Your task to perform on an android device: see creations saved in the google photos Image 0: 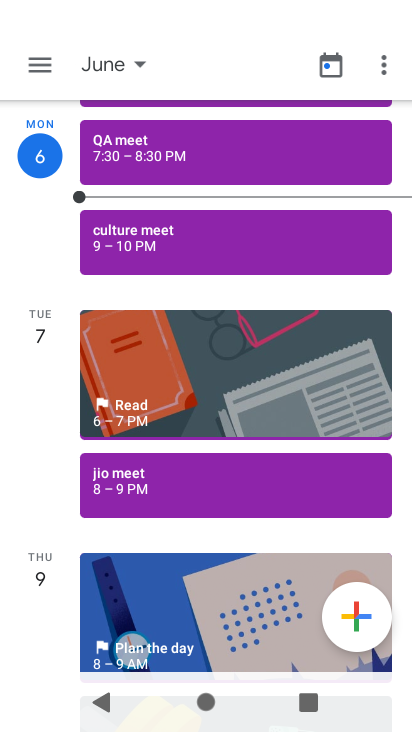
Step 0: press home button
Your task to perform on an android device: see creations saved in the google photos Image 1: 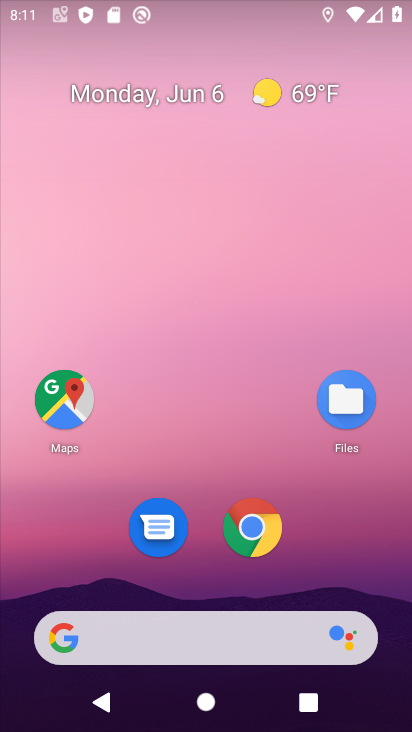
Step 1: drag from (187, 586) to (187, 94)
Your task to perform on an android device: see creations saved in the google photos Image 2: 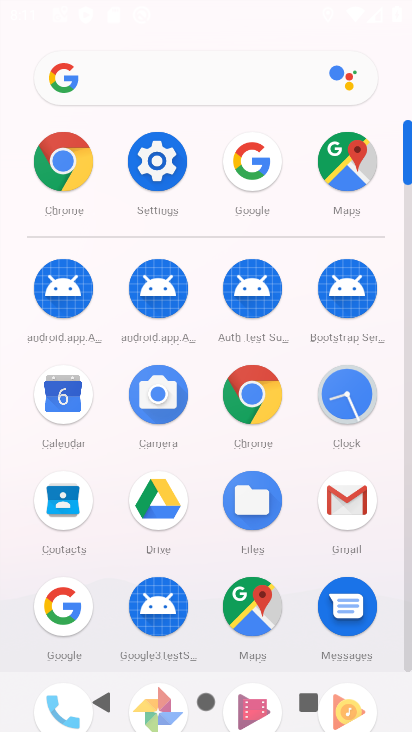
Step 2: drag from (101, 620) to (105, 356)
Your task to perform on an android device: see creations saved in the google photos Image 3: 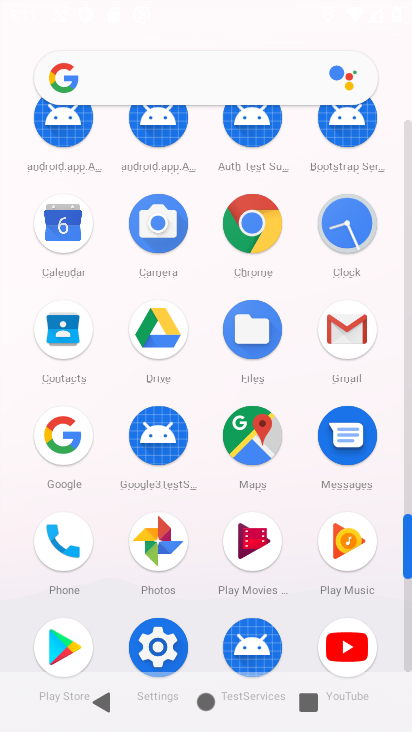
Step 3: click (159, 543)
Your task to perform on an android device: see creations saved in the google photos Image 4: 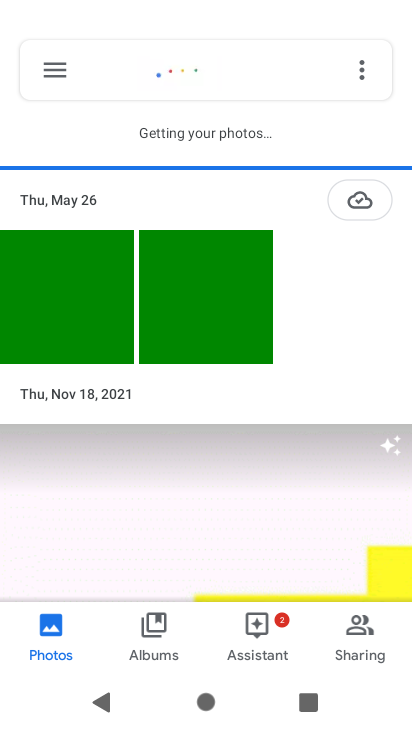
Step 4: click (211, 73)
Your task to perform on an android device: see creations saved in the google photos Image 5: 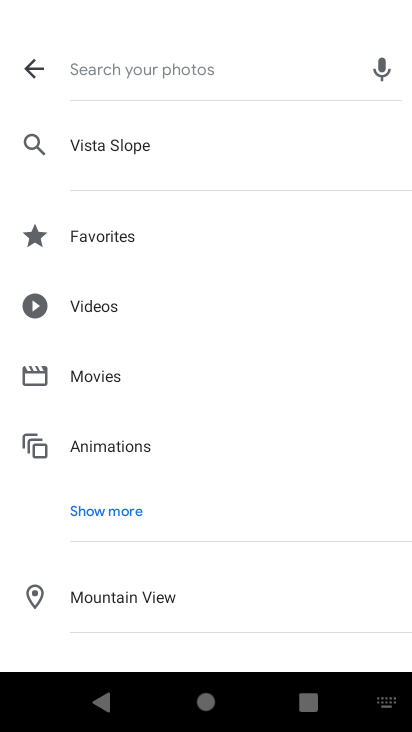
Step 5: click (112, 510)
Your task to perform on an android device: see creations saved in the google photos Image 6: 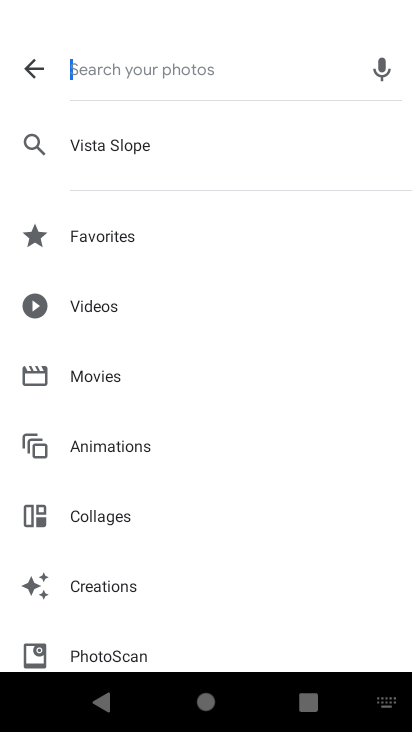
Step 6: drag from (218, 516) to (204, 324)
Your task to perform on an android device: see creations saved in the google photos Image 7: 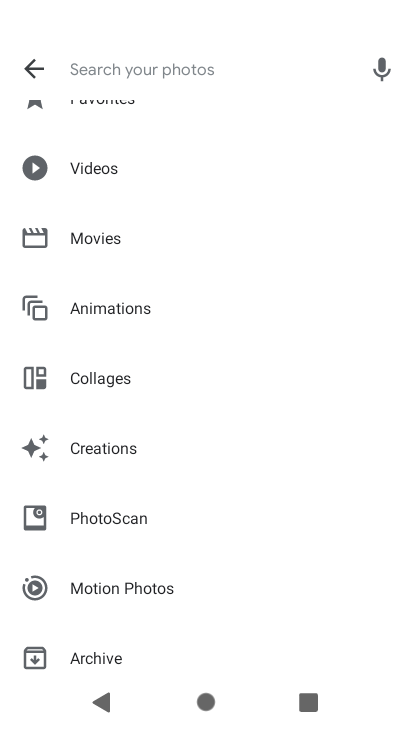
Step 7: click (153, 444)
Your task to perform on an android device: see creations saved in the google photos Image 8: 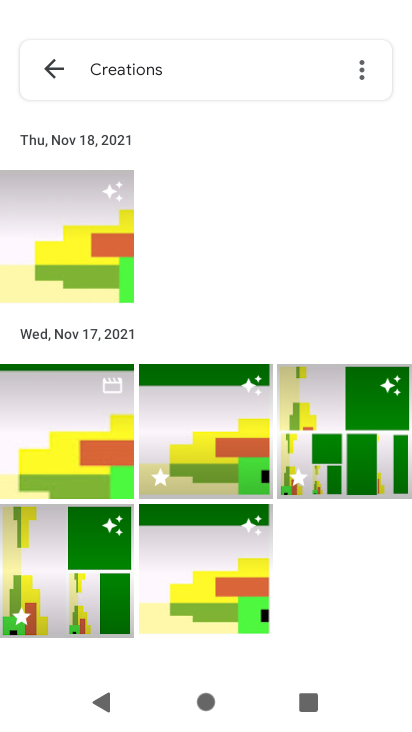
Step 8: task complete